Your task to perform on an android device: change alarm snooze length Image 0: 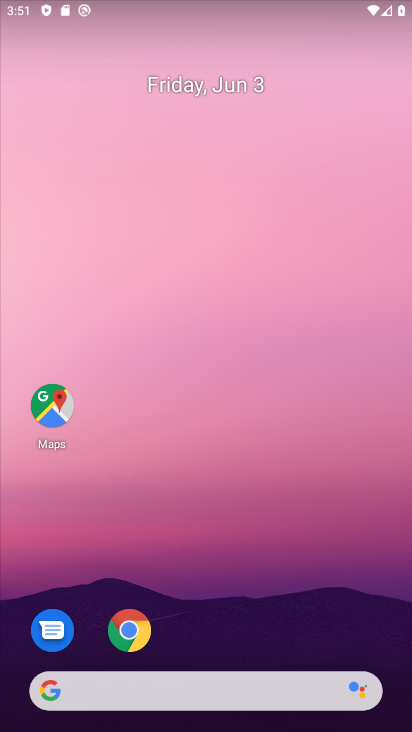
Step 0: drag from (230, 574) to (0, 579)
Your task to perform on an android device: change alarm snooze length Image 1: 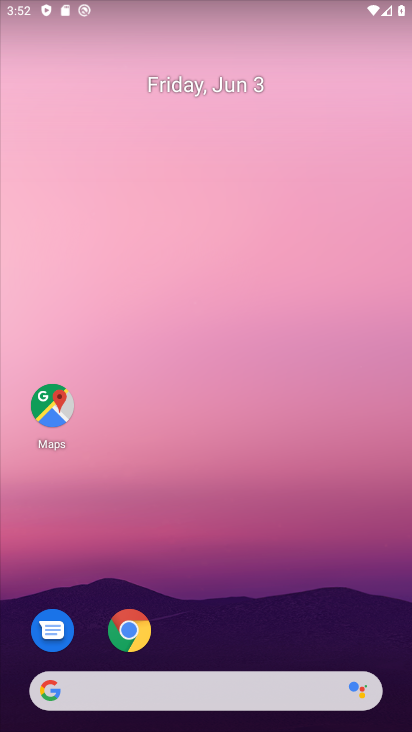
Step 1: drag from (12, 581) to (29, 14)
Your task to perform on an android device: change alarm snooze length Image 2: 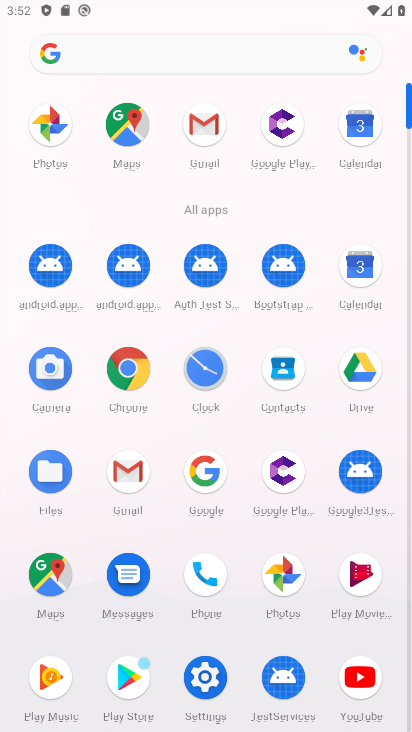
Step 2: drag from (26, 420) to (26, 220)
Your task to perform on an android device: change alarm snooze length Image 3: 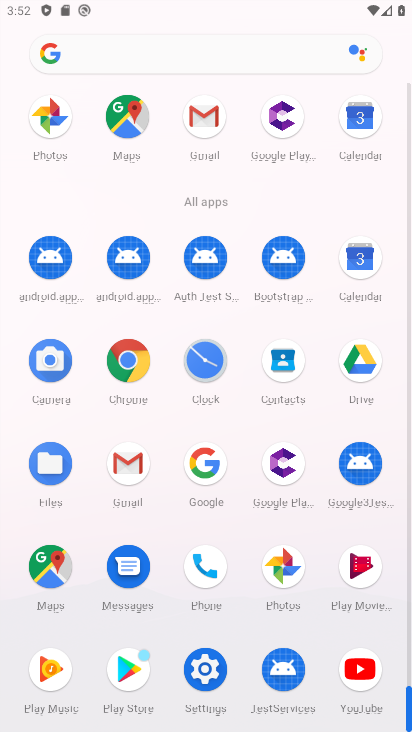
Step 3: click (204, 360)
Your task to perform on an android device: change alarm snooze length Image 4: 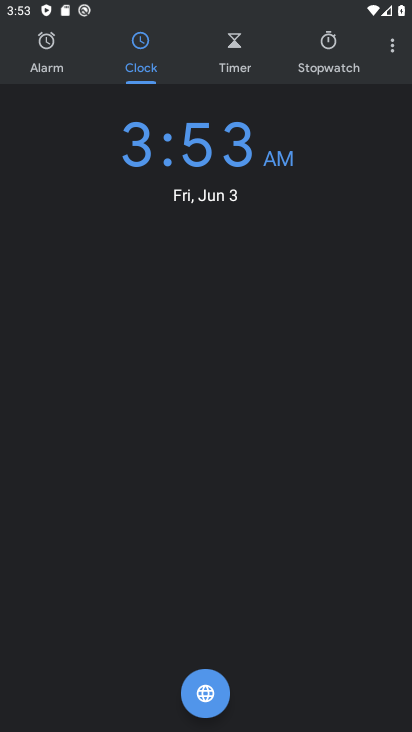
Step 4: drag from (393, 52) to (310, 92)
Your task to perform on an android device: change alarm snooze length Image 5: 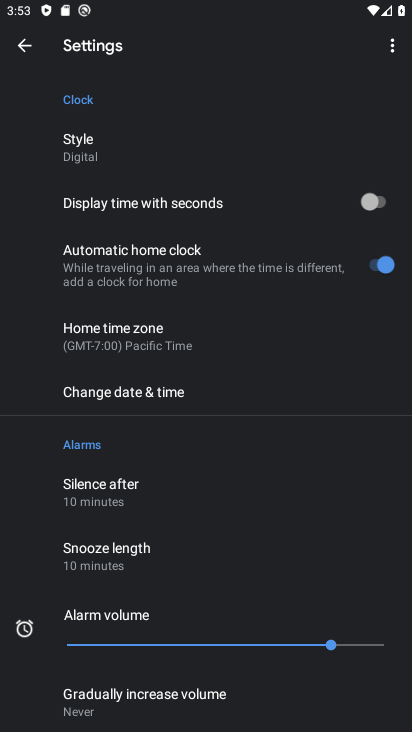
Step 5: click (146, 388)
Your task to perform on an android device: change alarm snooze length Image 6: 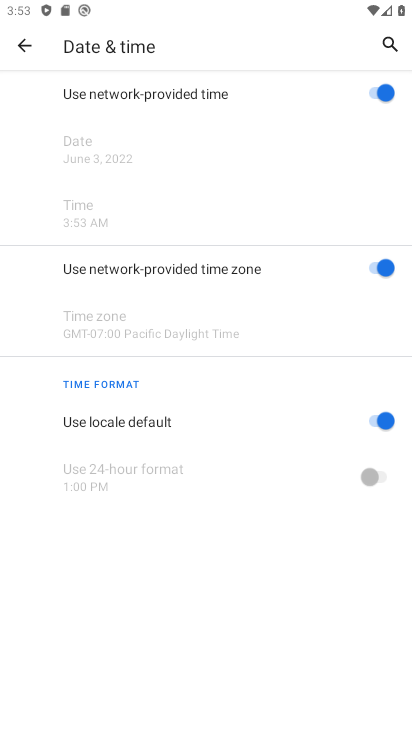
Step 6: click (29, 46)
Your task to perform on an android device: change alarm snooze length Image 7: 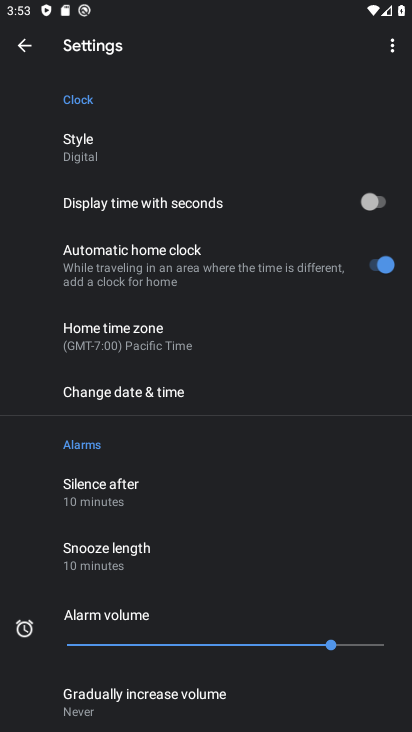
Step 7: click (143, 555)
Your task to perform on an android device: change alarm snooze length Image 8: 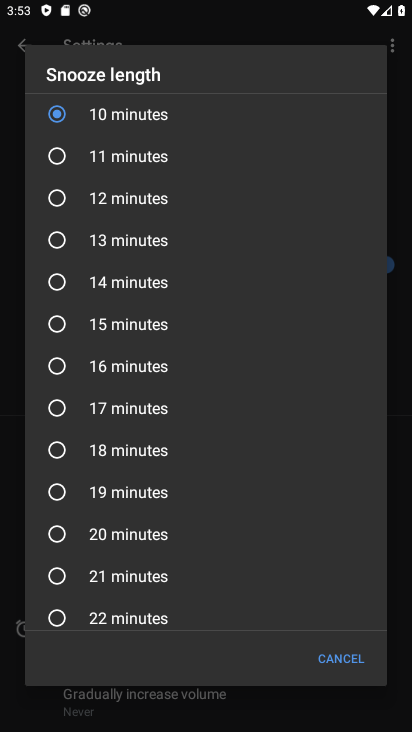
Step 8: click (118, 161)
Your task to perform on an android device: change alarm snooze length Image 9: 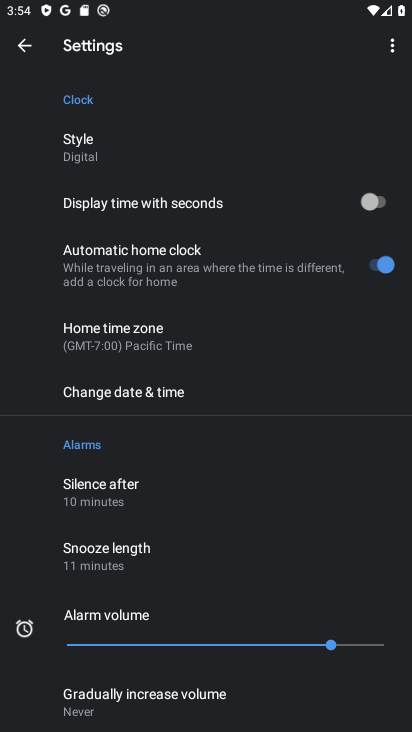
Step 9: task complete